Your task to perform on an android device: toggle location history Image 0: 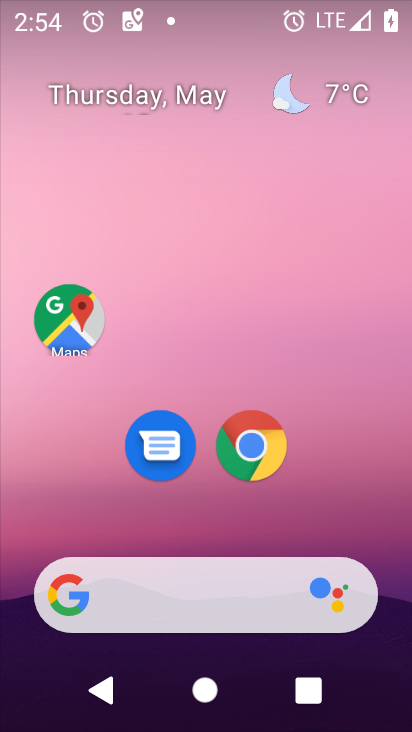
Step 0: click (70, 321)
Your task to perform on an android device: toggle location history Image 1: 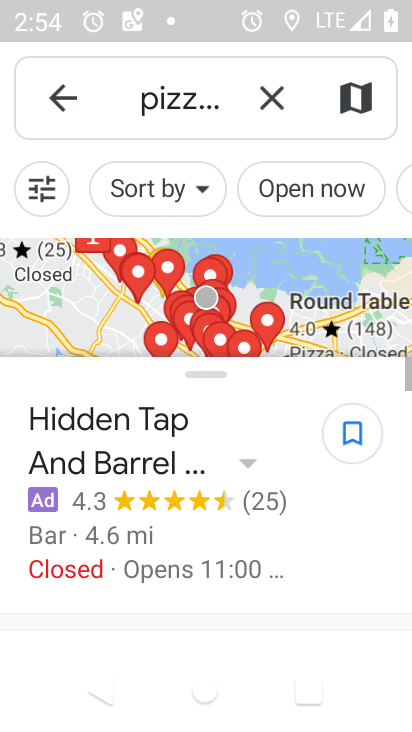
Step 1: click (255, 103)
Your task to perform on an android device: toggle location history Image 2: 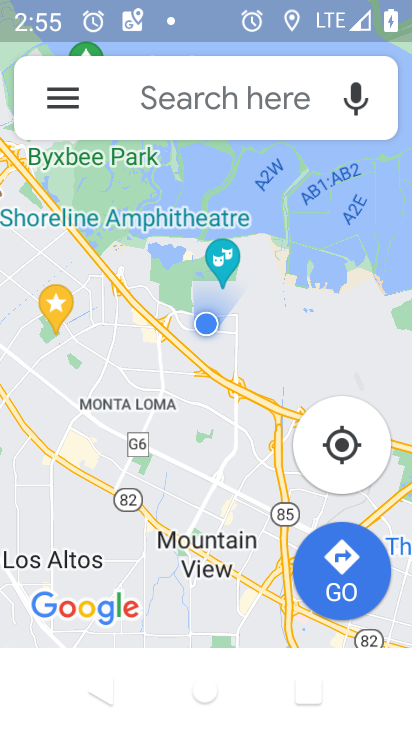
Step 2: click (149, 96)
Your task to perform on an android device: toggle location history Image 3: 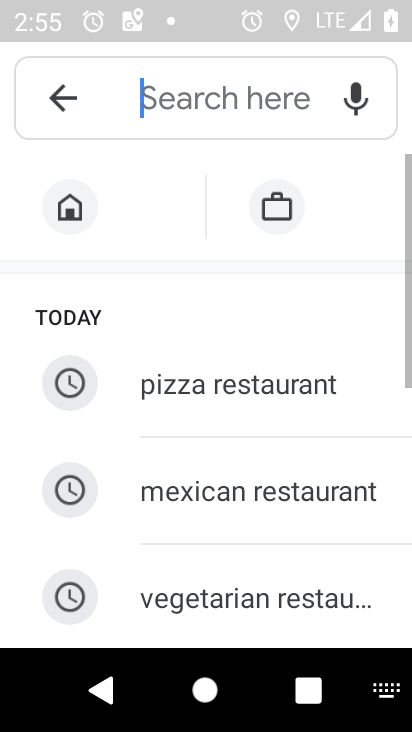
Step 3: click (71, 105)
Your task to perform on an android device: toggle location history Image 4: 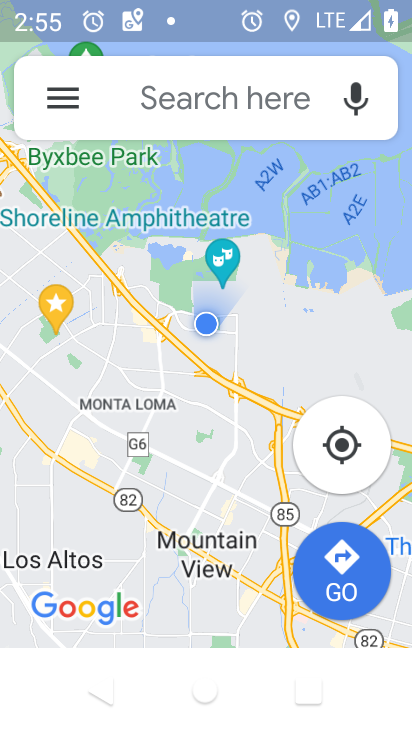
Step 4: click (69, 105)
Your task to perform on an android device: toggle location history Image 5: 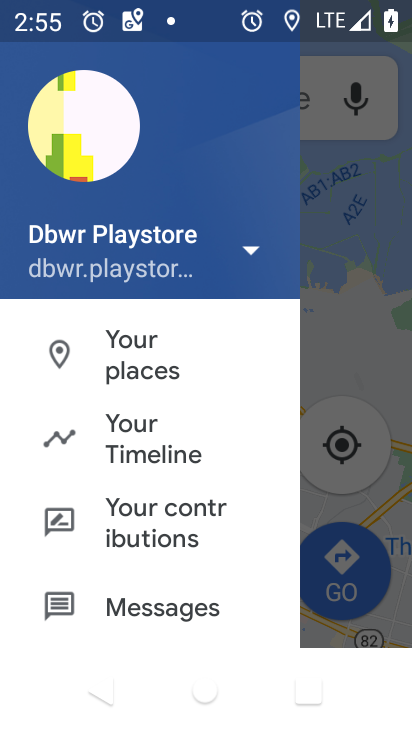
Step 5: click (130, 447)
Your task to perform on an android device: toggle location history Image 6: 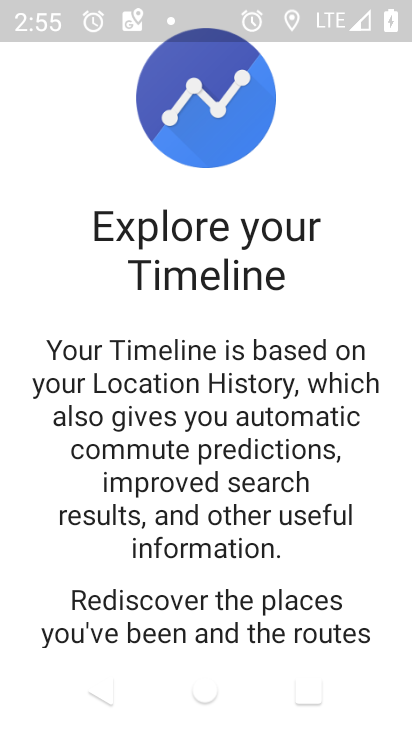
Step 6: drag from (370, 620) to (370, 401)
Your task to perform on an android device: toggle location history Image 7: 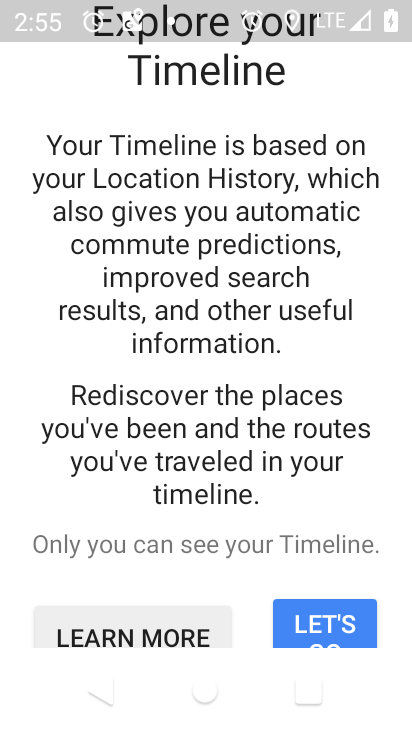
Step 7: click (336, 623)
Your task to perform on an android device: toggle location history Image 8: 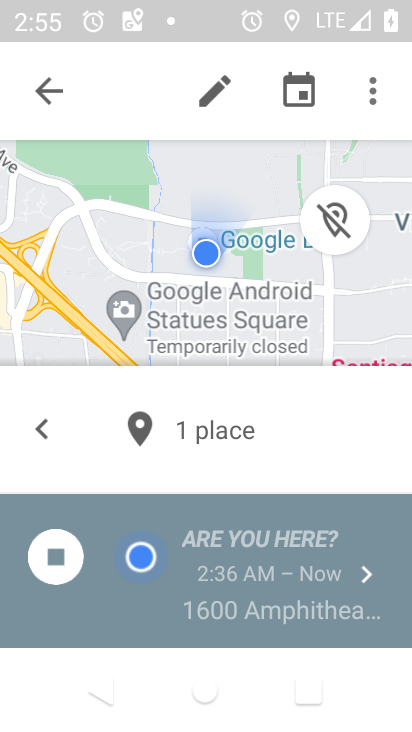
Step 8: click (374, 91)
Your task to perform on an android device: toggle location history Image 9: 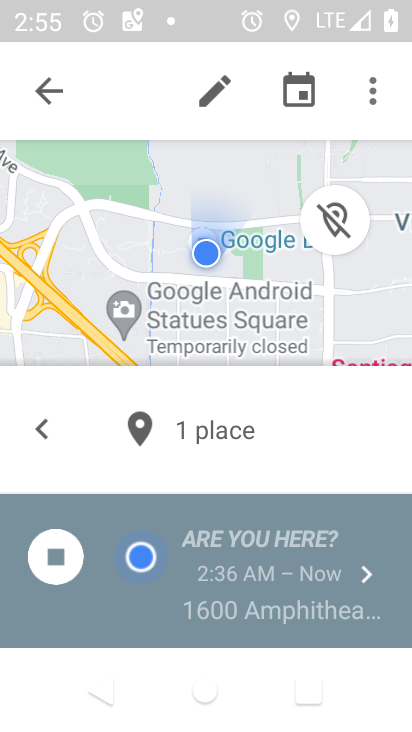
Step 9: click (374, 97)
Your task to perform on an android device: toggle location history Image 10: 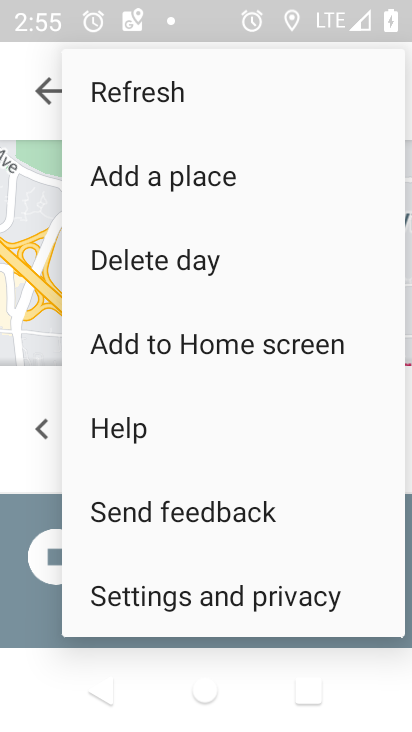
Step 10: click (142, 590)
Your task to perform on an android device: toggle location history Image 11: 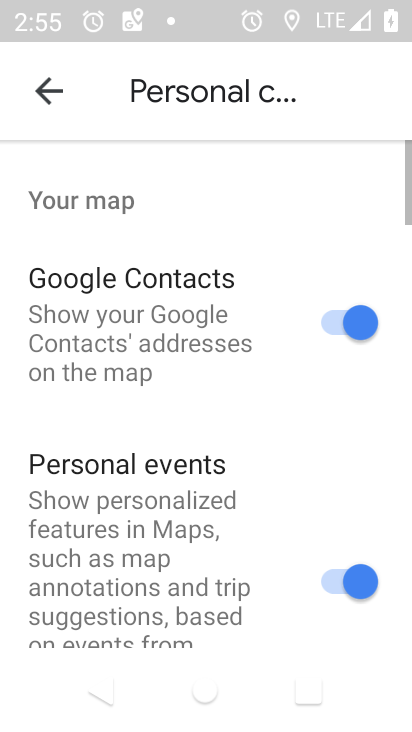
Step 11: drag from (137, 546) to (131, 168)
Your task to perform on an android device: toggle location history Image 12: 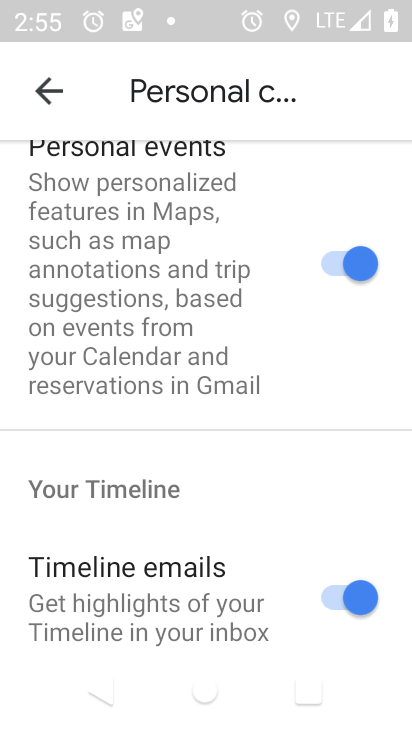
Step 12: drag from (136, 499) to (138, 96)
Your task to perform on an android device: toggle location history Image 13: 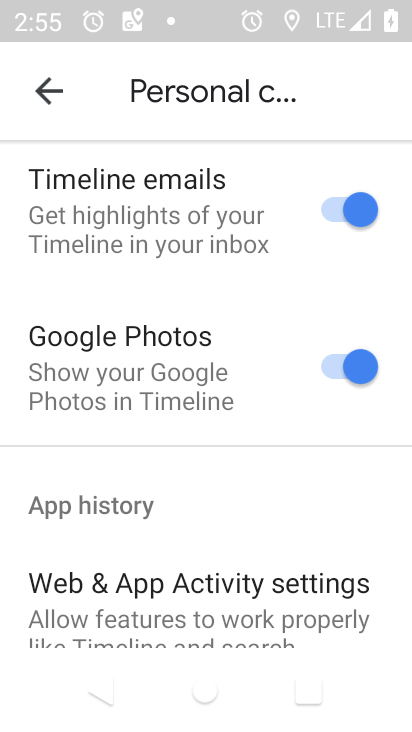
Step 13: drag from (143, 537) to (142, 200)
Your task to perform on an android device: toggle location history Image 14: 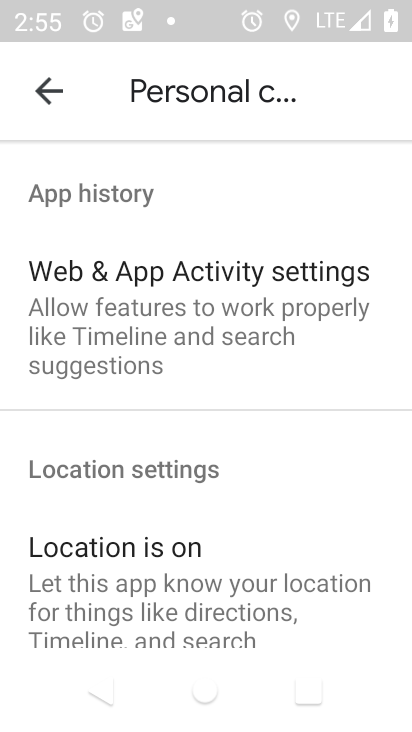
Step 14: drag from (172, 567) to (163, 258)
Your task to perform on an android device: toggle location history Image 15: 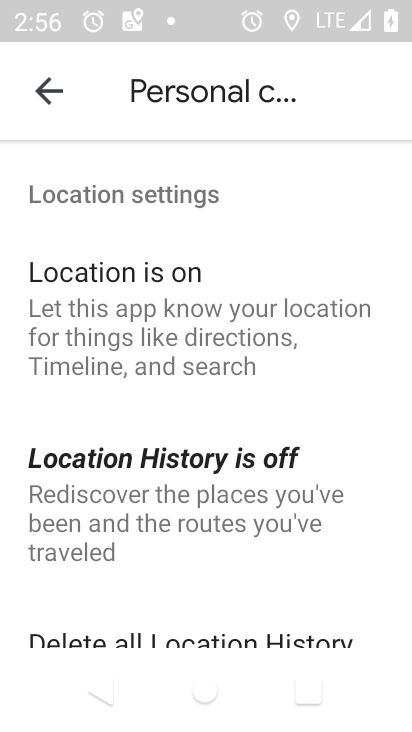
Step 15: click (141, 510)
Your task to perform on an android device: toggle location history Image 16: 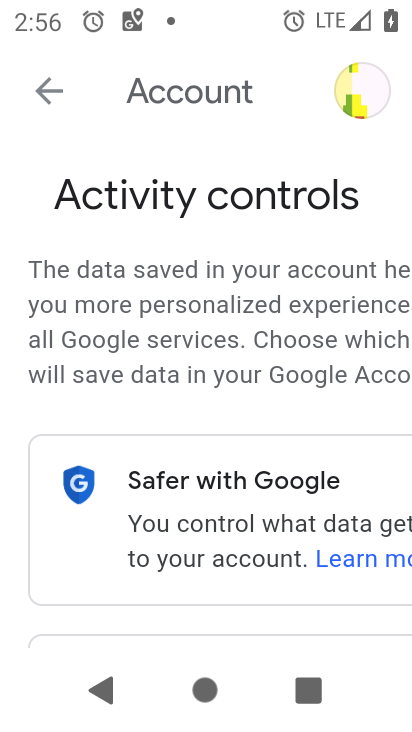
Step 16: drag from (175, 395) to (138, 180)
Your task to perform on an android device: toggle location history Image 17: 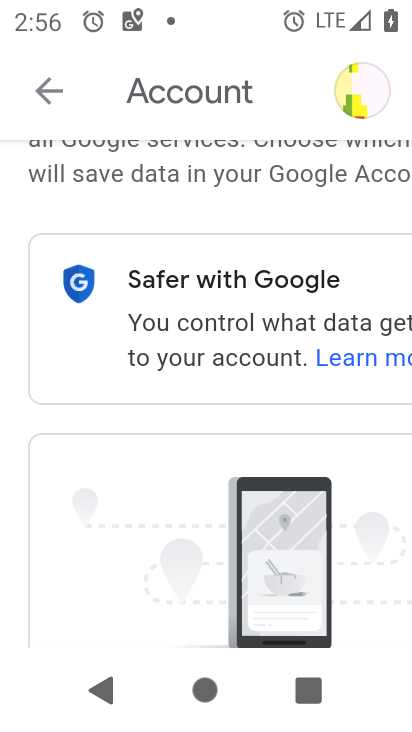
Step 17: drag from (181, 537) to (126, 185)
Your task to perform on an android device: toggle location history Image 18: 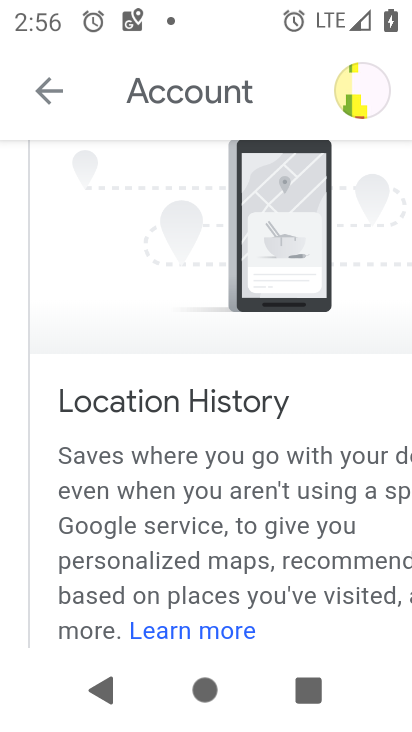
Step 18: drag from (229, 531) to (212, 172)
Your task to perform on an android device: toggle location history Image 19: 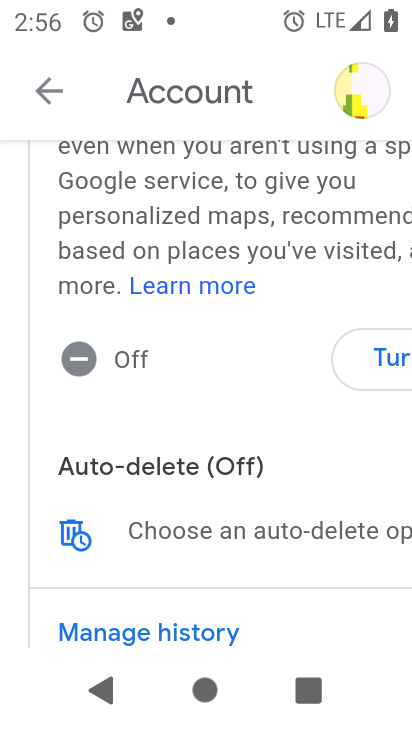
Step 19: click (380, 362)
Your task to perform on an android device: toggle location history Image 20: 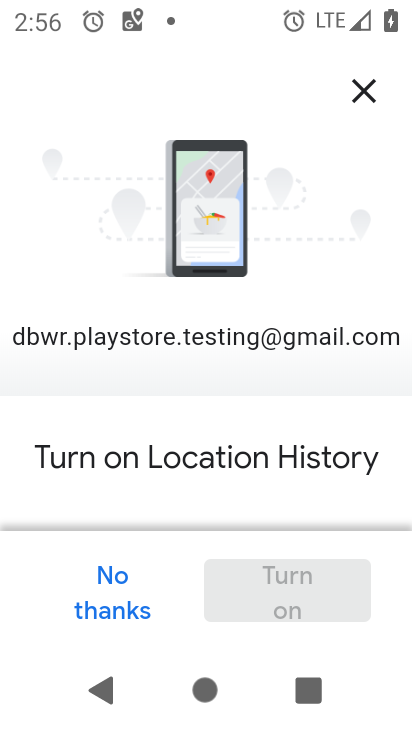
Step 20: drag from (231, 472) to (185, 112)
Your task to perform on an android device: toggle location history Image 21: 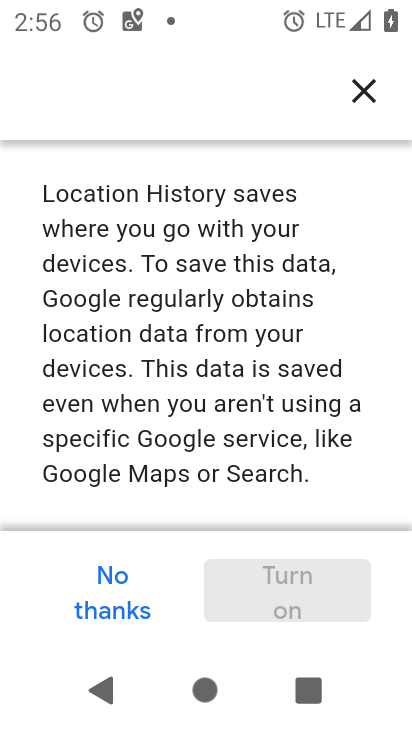
Step 21: drag from (219, 441) to (212, 158)
Your task to perform on an android device: toggle location history Image 22: 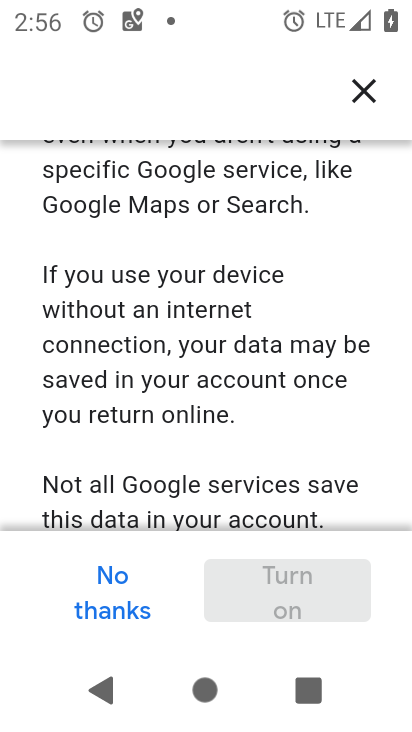
Step 22: drag from (235, 429) to (202, 90)
Your task to perform on an android device: toggle location history Image 23: 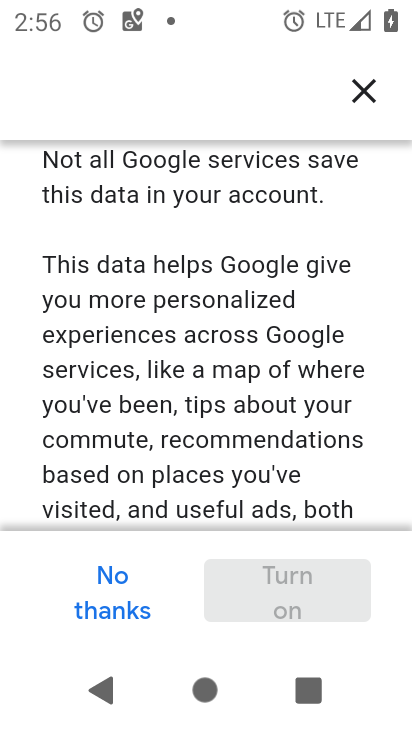
Step 23: drag from (169, 444) to (152, 157)
Your task to perform on an android device: toggle location history Image 24: 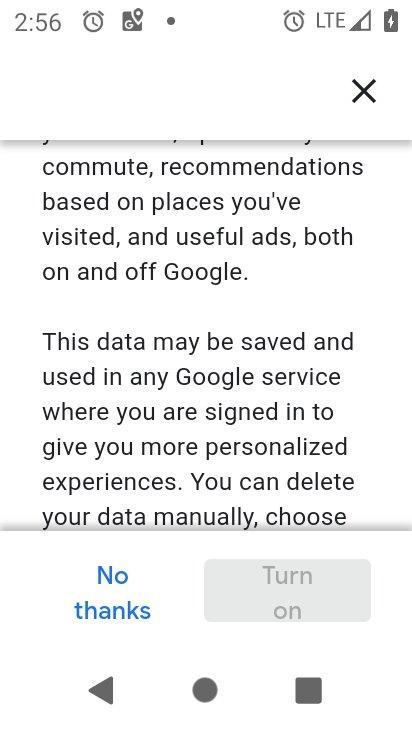
Step 24: drag from (191, 444) to (174, 104)
Your task to perform on an android device: toggle location history Image 25: 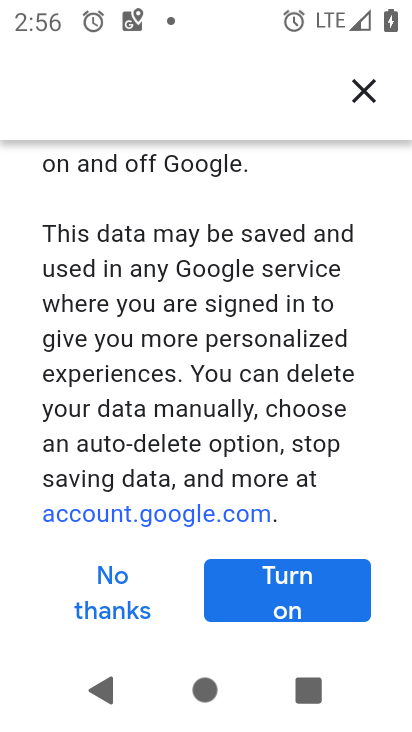
Step 25: drag from (183, 443) to (170, 139)
Your task to perform on an android device: toggle location history Image 26: 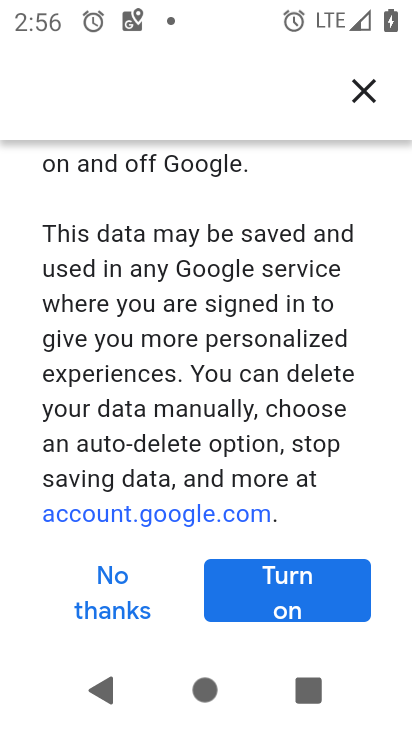
Step 26: drag from (209, 443) to (190, 184)
Your task to perform on an android device: toggle location history Image 27: 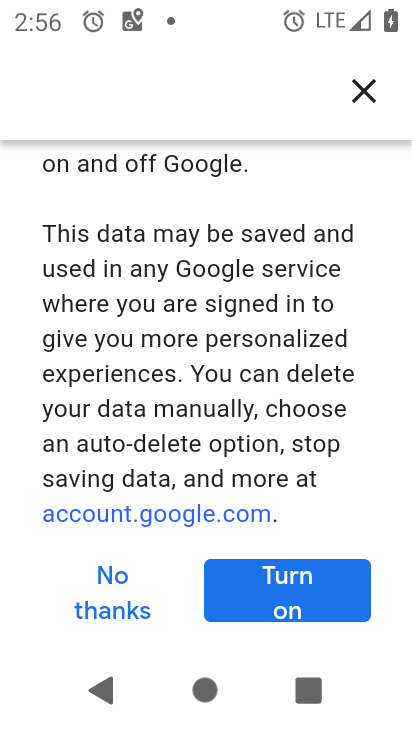
Step 27: click (274, 584)
Your task to perform on an android device: toggle location history Image 28: 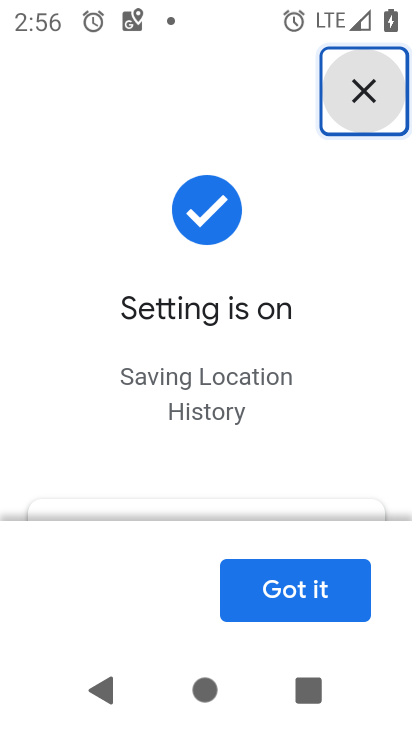
Step 28: click (276, 586)
Your task to perform on an android device: toggle location history Image 29: 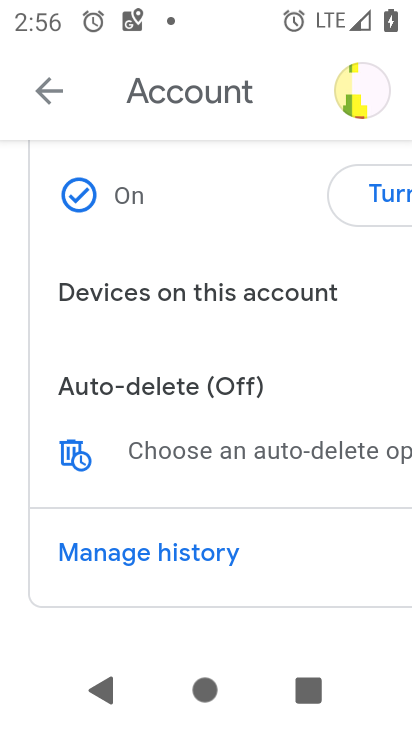
Step 29: task complete